Your task to perform on an android device: Open Chrome and go to settings Image 0: 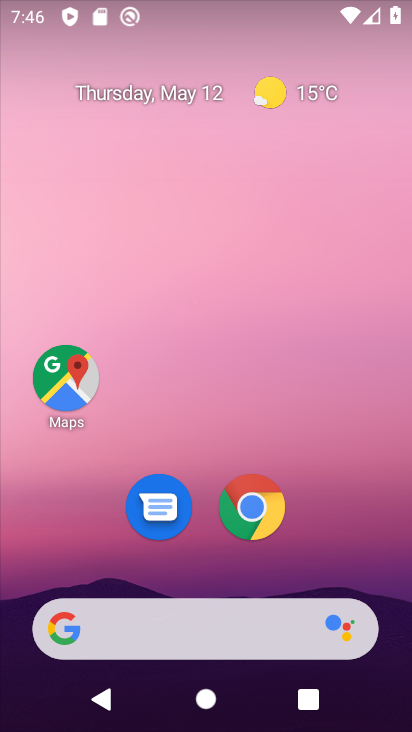
Step 0: click (258, 498)
Your task to perform on an android device: Open Chrome and go to settings Image 1: 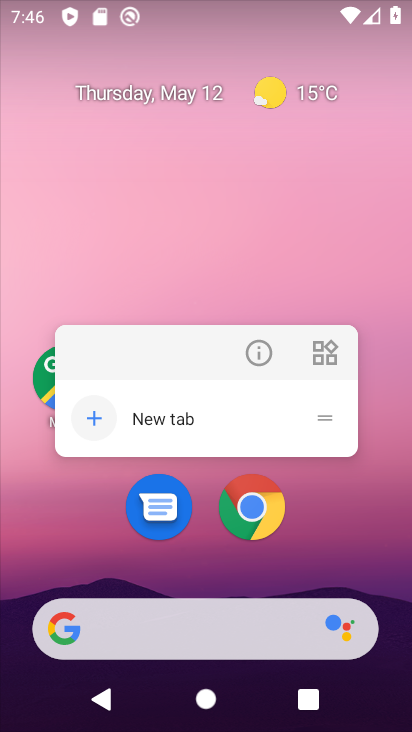
Step 1: click (264, 499)
Your task to perform on an android device: Open Chrome and go to settings Image 2: 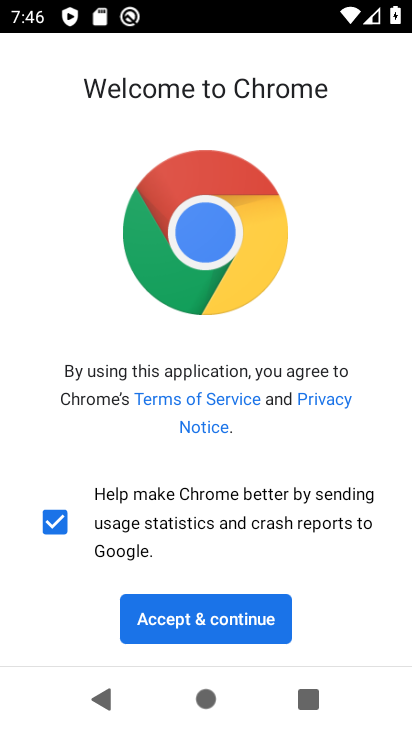
Step 2: click (210, 620)
Your task to perform on an android device: Open Chrome and go to settings Image 3: 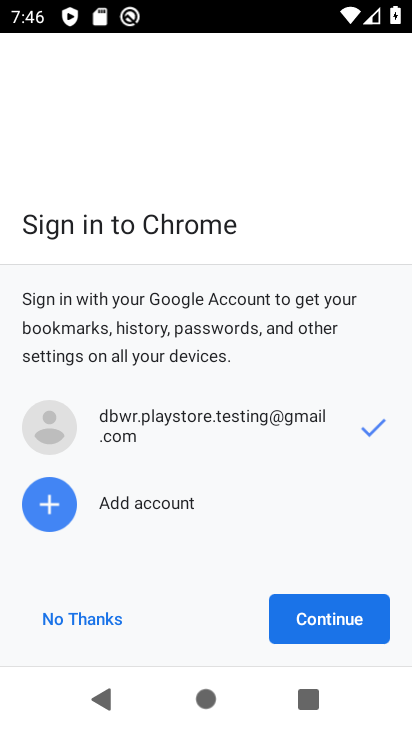
Step 3: click (322, 609)
Your task to perform on an android device: Open Chrome and go to settings Image 4: 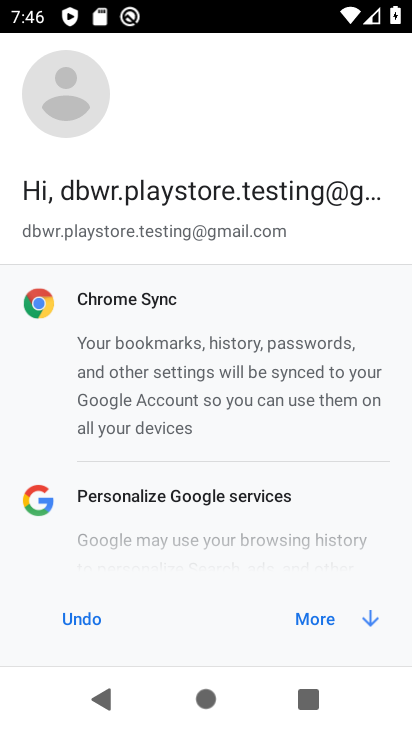
Step 4: click (322, 611)
Your task to perform on an android device: Open Chrome and go to settings Image 5: 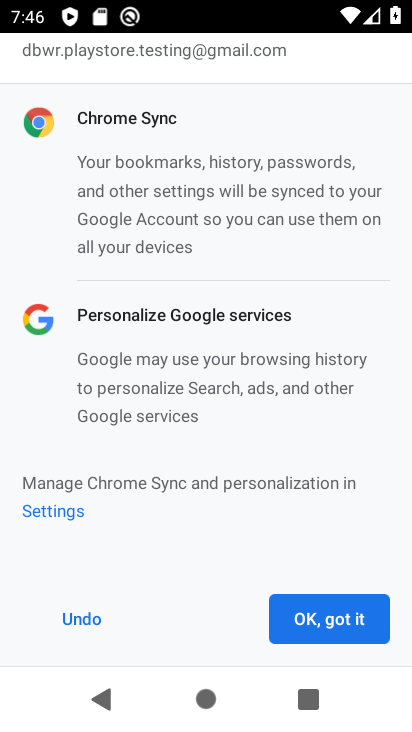
Step 5: click (322, 611)
Your task to perform on an android device: Open Chrome and go to settings Image 6: 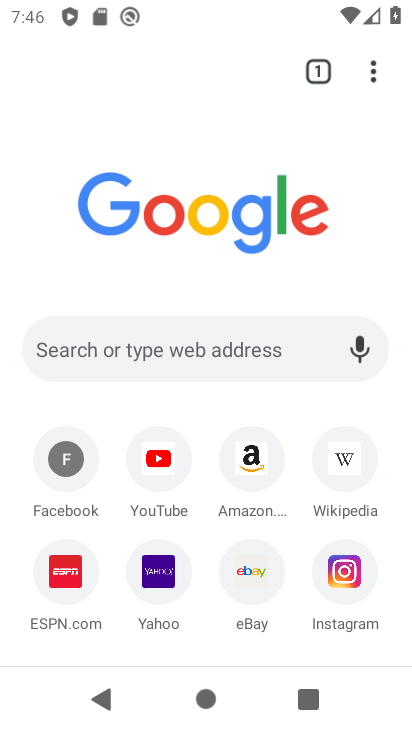
Step 6: click (367, 63)
Your task to perform on an android device: Open Chrome and go to settings Image 7: 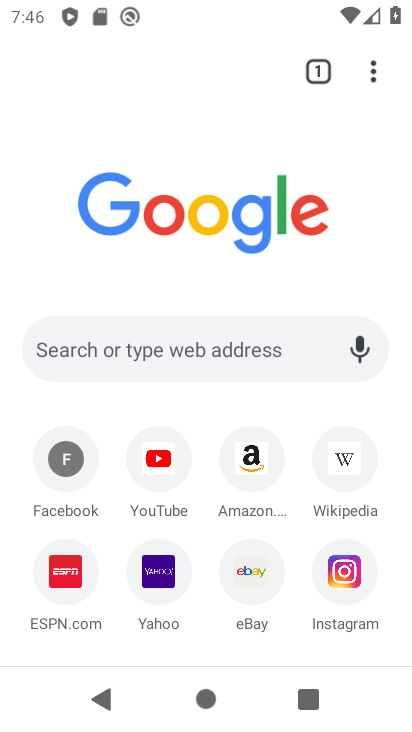
Step 7: click (374, 74)
Your task to perform on an android device: Open Chrome and go to settings Image 8: 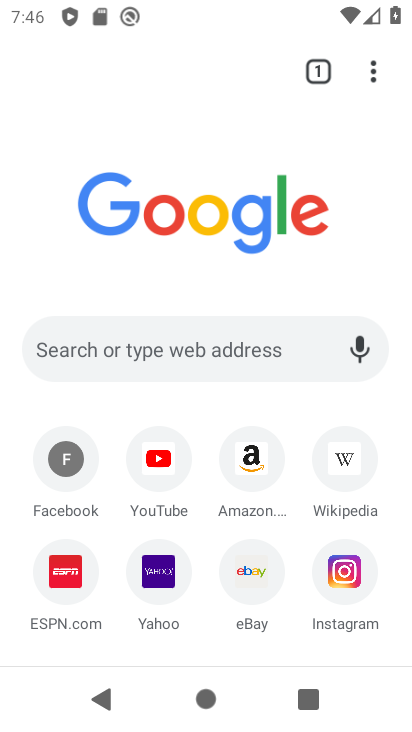
Step 8: click (374, 74)
Your task to perform on an android device: Open Chrome and go to settings Image 9: 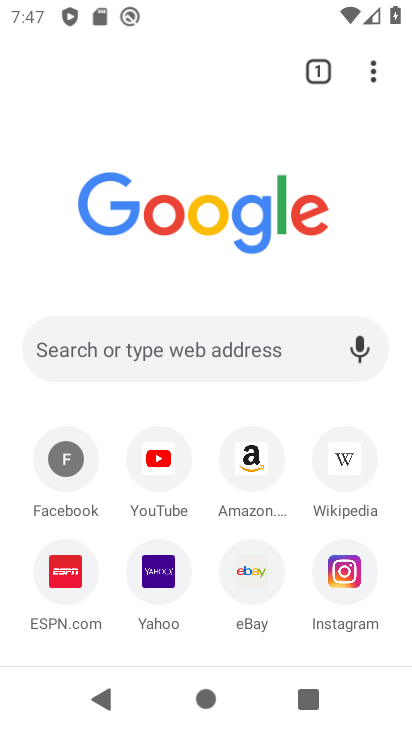
Step 9: click (375, 86)
Your task to perform on an android device: Open Chrome and go to settings Image 10: 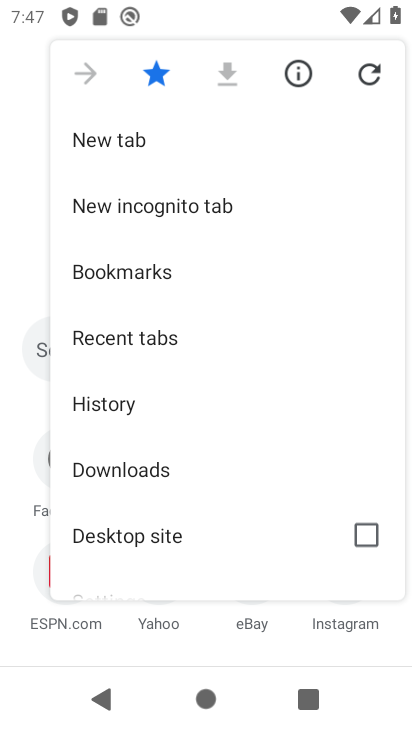
Step 10: drag from (216, 520) to (241, 187)
Your task to perform on an android device: Open Chrome and go to settings Image 11: 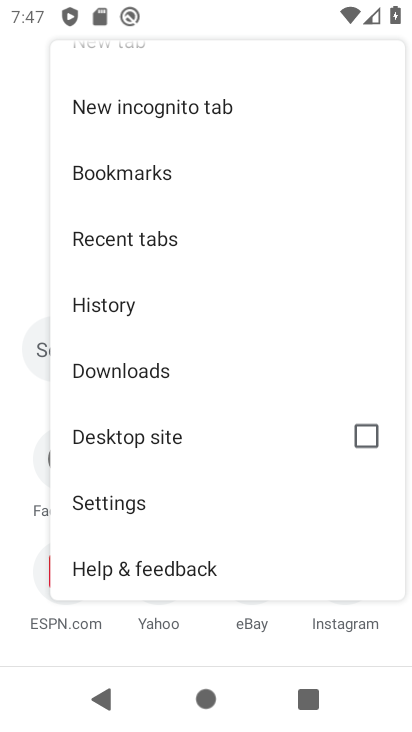
Step 11: click (188, 508)
Your task to perform on an android device: Open Chrome and go to settings Image 12: 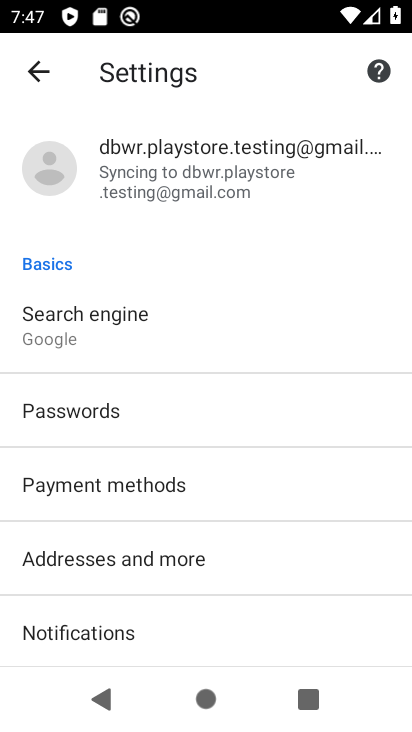
Step 12: task complete